Your task to perform on an android device: open chrome and create a bookmark for the current page Image 0: 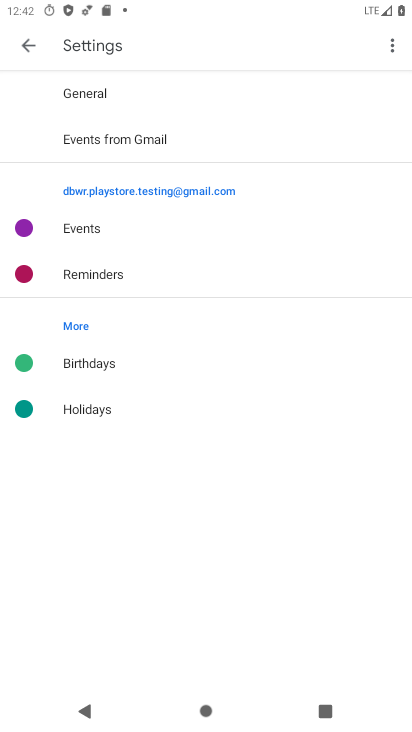
Step 0: press home button
Your task to perform on an android device: open chrome and create a bookmark for the current page Image 1: 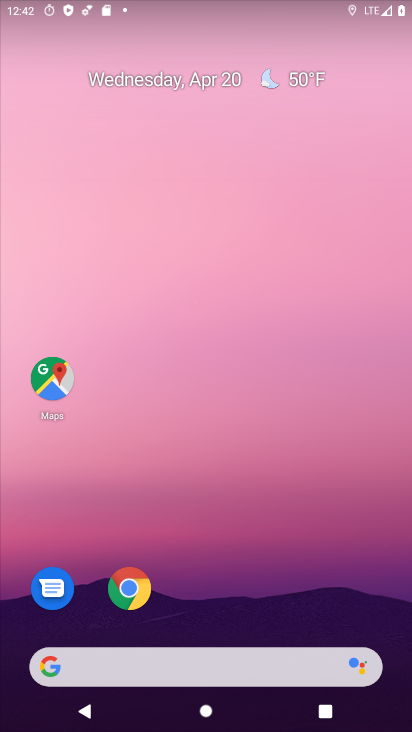
Step 1: click (137, 577)
Your task to perform on an android device: open chrome and create a bookmark for the current page Image 2: 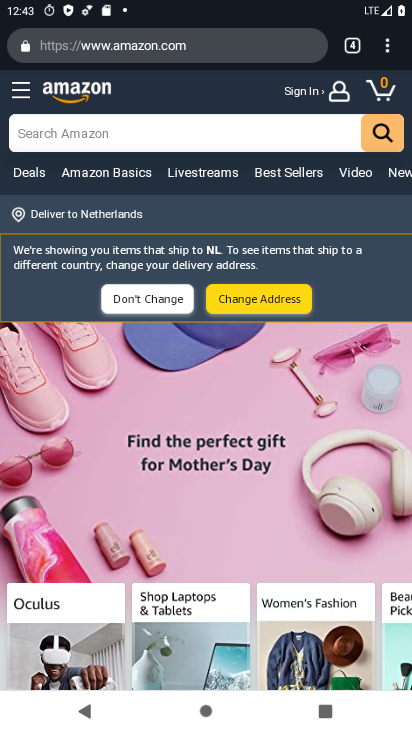
Step 2: task complete